Your task to perform on an android device: What's on my calendar today? Image 0: 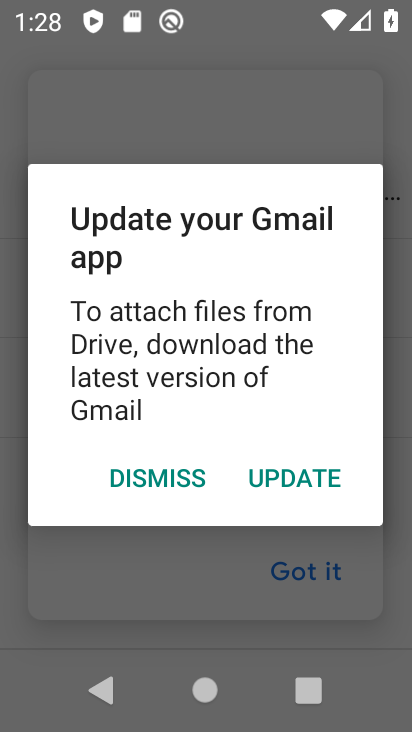
Step 0: press home button
Your task to perform on an android device: What's on my calendar today? Image 1: 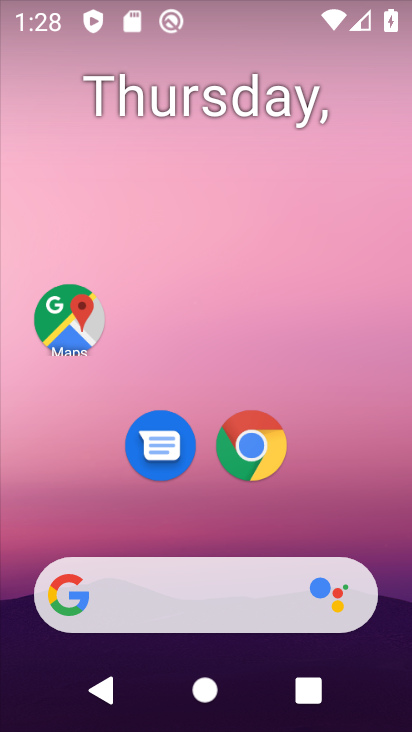
Step 1: drag from (16, 609) to (281, 156)
Your task to perform on an android device: What's on my calendar today? Image 2: 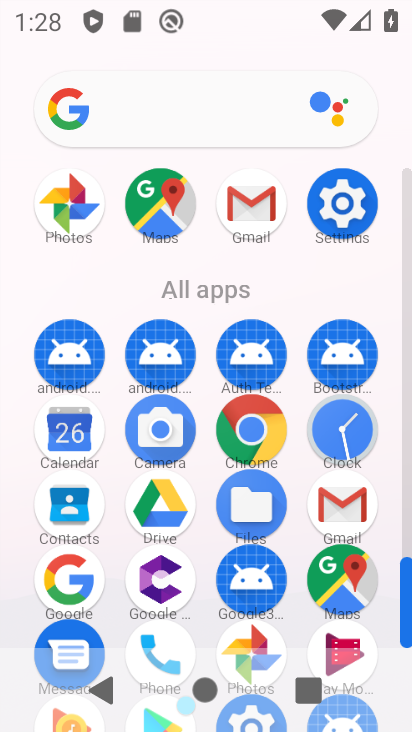
Step 2: click (64, 441)
Your task to perform on an android device: What's on my calendar today? Image 3: 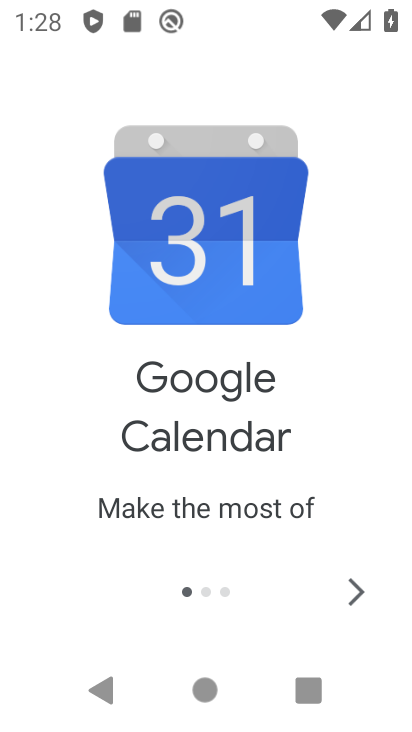
Step 3: click (341, 590)
Your task to perform on an android device: What's on my calendar today? Image 4: 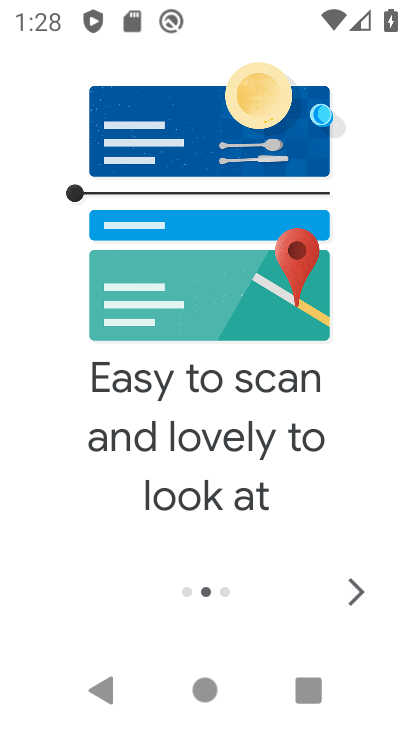
Step 4: click (344, 582)
Your task to perform on an android device: What's on my calendar today? Image 5: 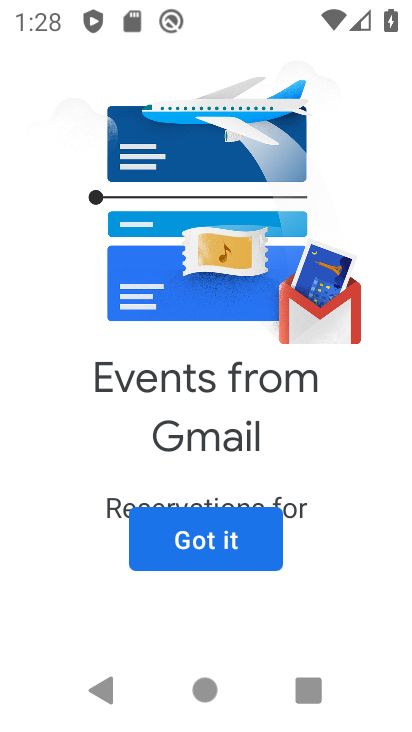
Step 5: click (260, 551)
Your task to perform on an android device: What's on my calendar today? Image 6: 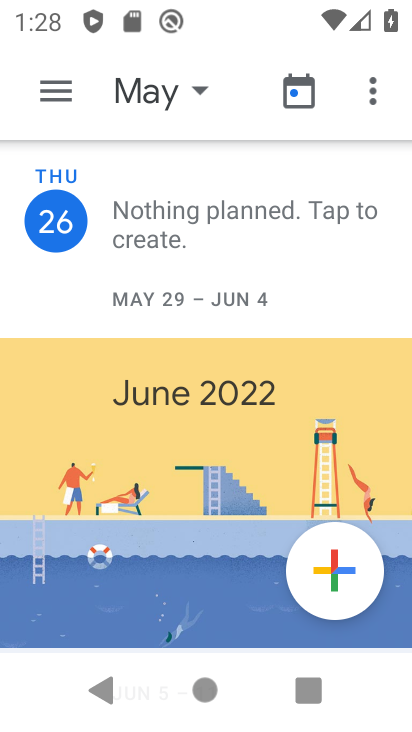
Step 6: click (159, 93)
Your task to perform on an android device: What's on my calendar today? Image 7: 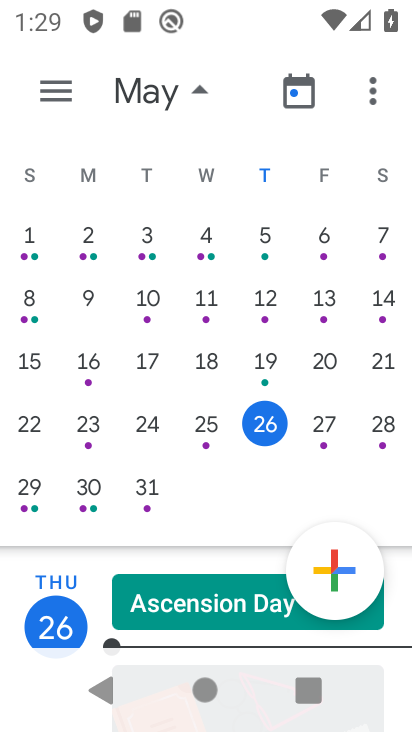
Step 7: task complete